Your task to perform on an android device: check the backup settings in the google photos Image 0: 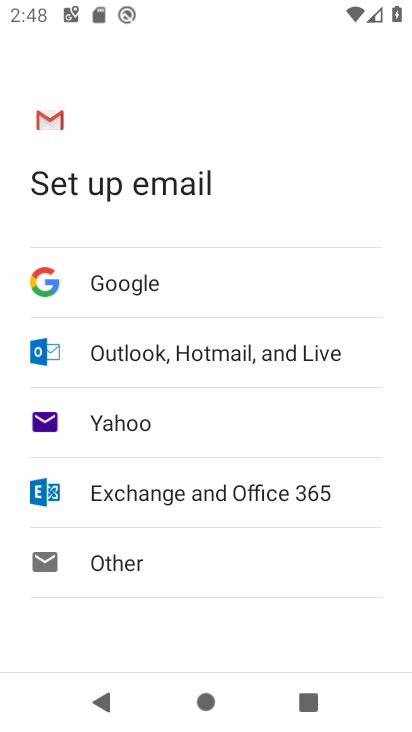
Step 0: press home button
Your task to perform on an android device: check the backup settings in the google photos Image 1: 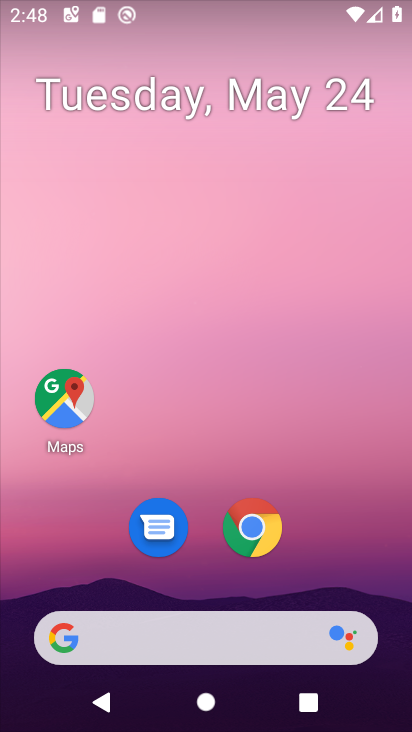
Step 1: drag from (311, 585) to (348, 12)
Your task to perform on an android device: check the backup settings in the google photos Image 2: 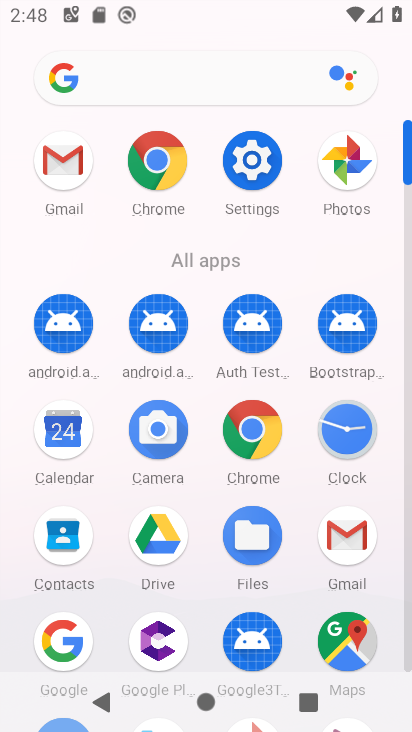
Step 2: click (349, 161)
Your task to perform on an android device: check the backup settings in the google photos Image 3: 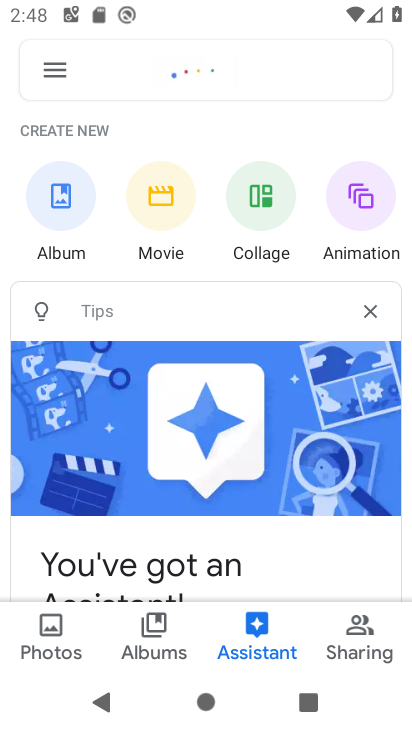
Step 3: click (54, 72)
Your task to perform on an android device: check the backup settings in the google photos Image 4: 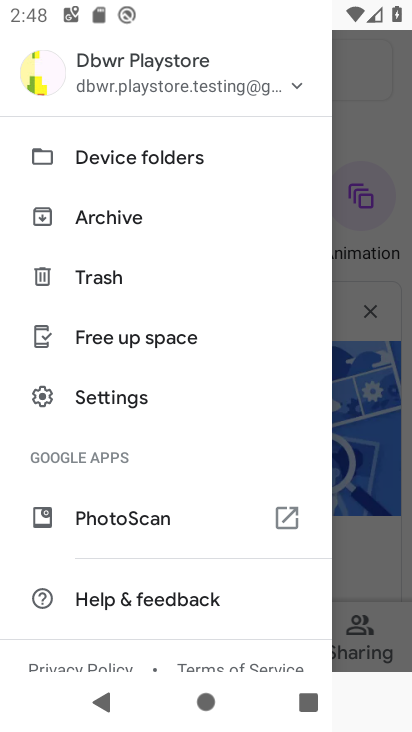
Step 4: click (101, 405)
Your task to perform on an android device: check the backup settings in the google photos Image 5: 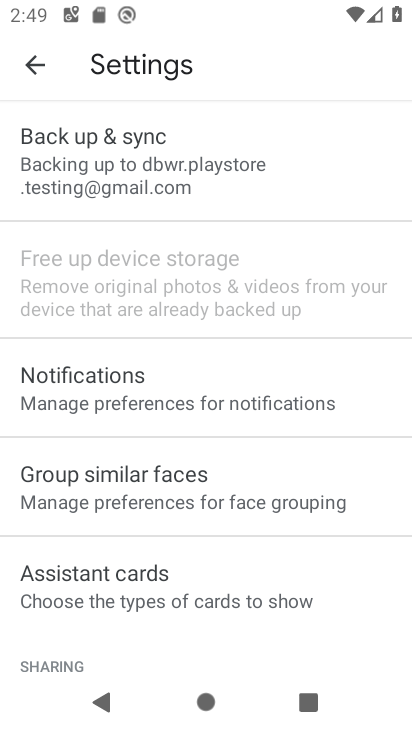
Step 5: click (93, 180)
Your task to perform on an android device: check the backup settings in the google photos Image 6: 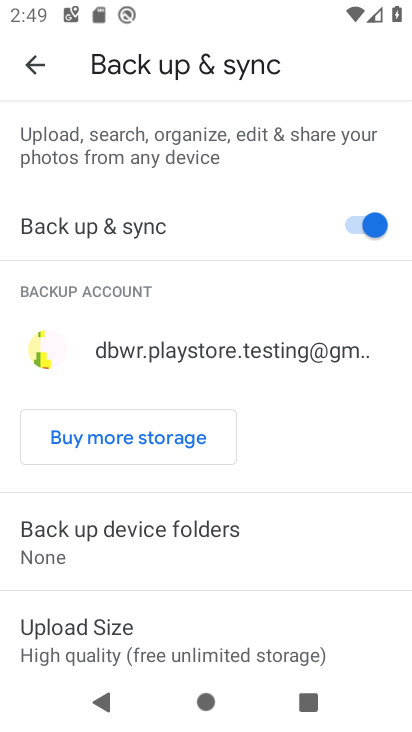
Step 6: task complete